Your task to perform on an android device: turn on improve location accuracy Image 0: 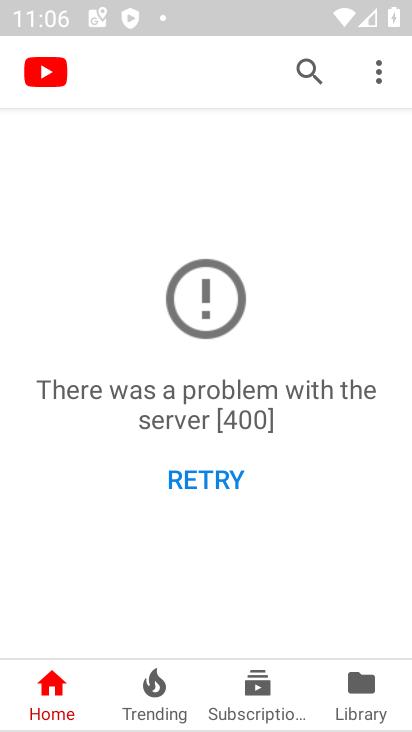
Step 0: press home button
Your task to perform on an android device: turn on improve location accuracy Image 1: 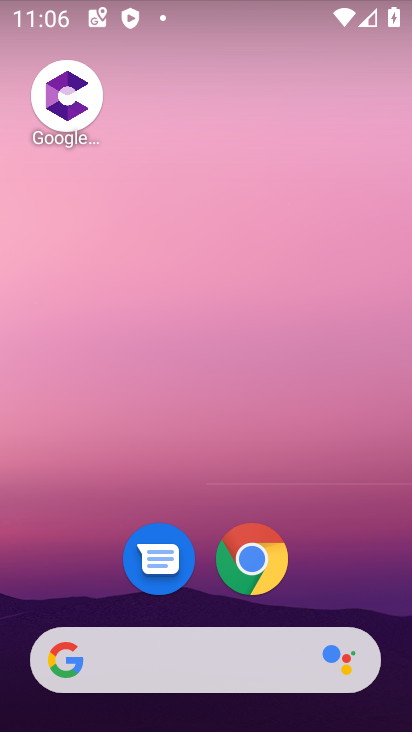
Step 1: drag from (141, 422) to (194, 76)
Your task to perform on an android device: turn on improve location accuracy Image 2: 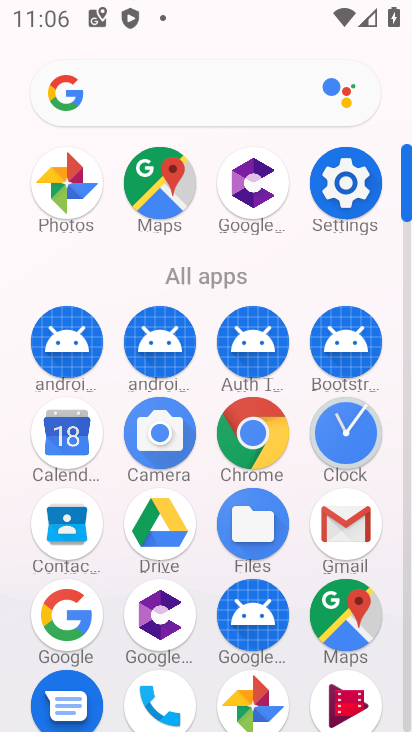
Step 2: click (336, 182)
Your task to perform on an android device: turn on improve location accuracy Image 3: 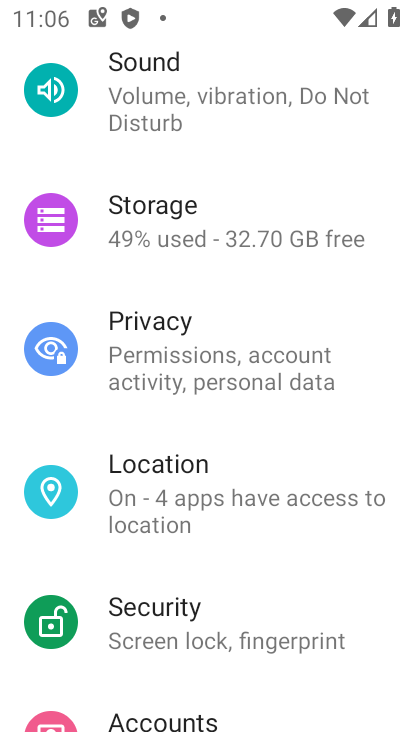
Step 3: click (165, 508)
Your task to perform on an android device: turn on improve location accuracy Image 4: 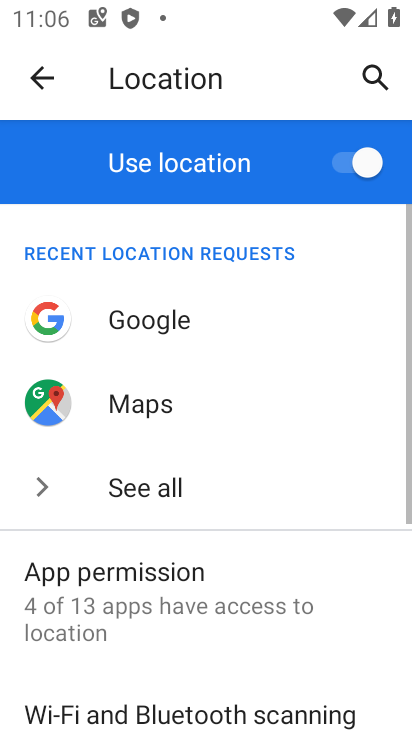
Step 4: drag from (103, 690) to (266, 120)
Your task to perform on an android device: turn on improve location accuracy Image 5: 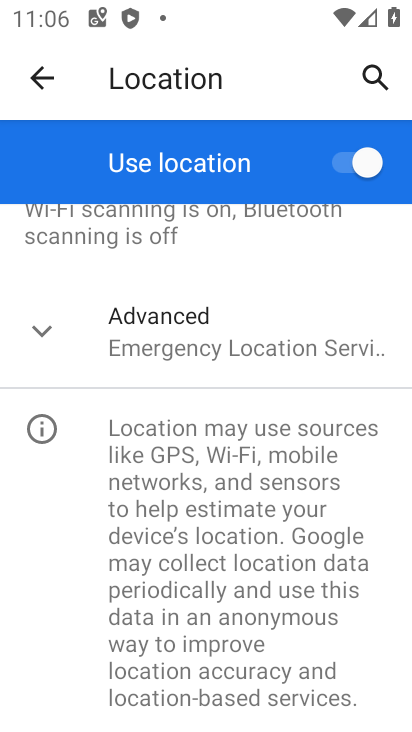
Step 5: click (202, 331)
Your task to perform on an android device: turn on improve location accuracy Image 6: 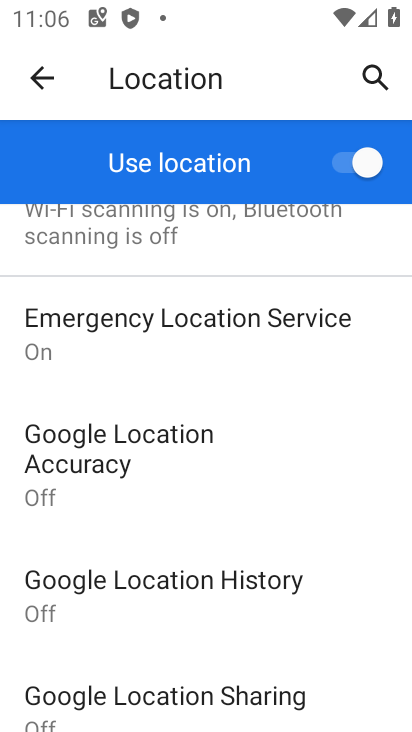
Step 6: click (120, 460)
Your task to perform on an android device: turn on improve location accuracy Image 7: 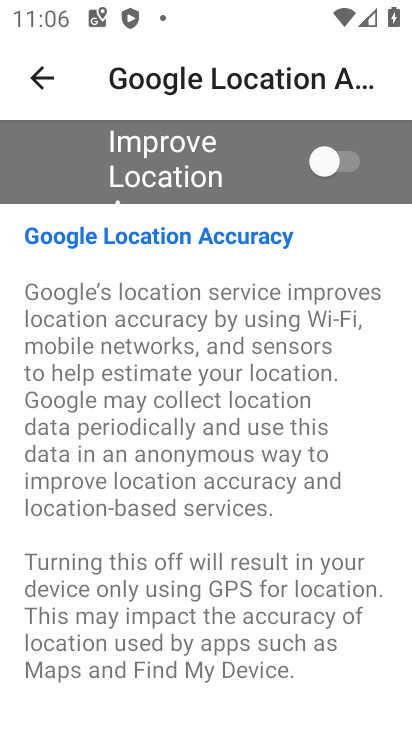
Step 7: click (321, 165)
Your task to perform on an android device: turn on improve location accuracy Image 8: 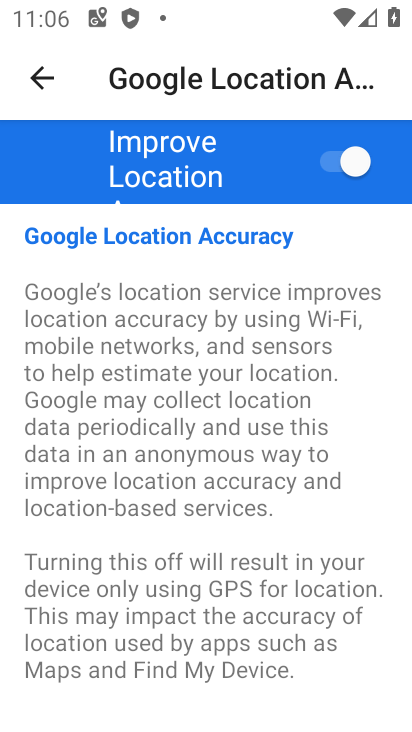
Step 8: task complete